Your task to perform on an android device: Go to wifi settings Image 0: 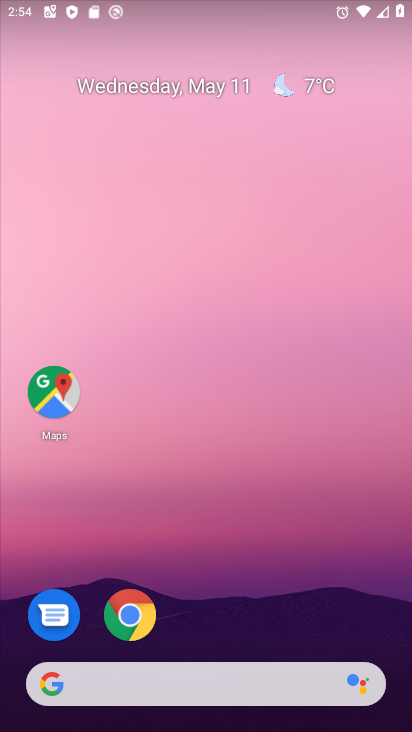
Step 0: drag from (195, 612) to (239, 120)
Your task to perform on an android device: Go to wifi settings Image 1: 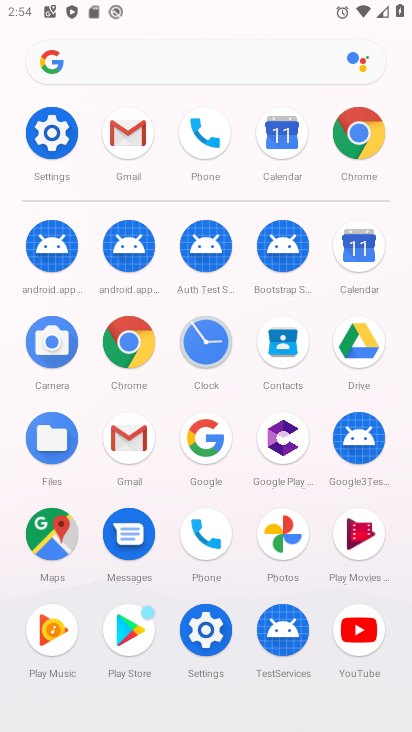
Step 1: click (58, 131)
Your task to perform on an android device: Go to wifi settings Image 2: 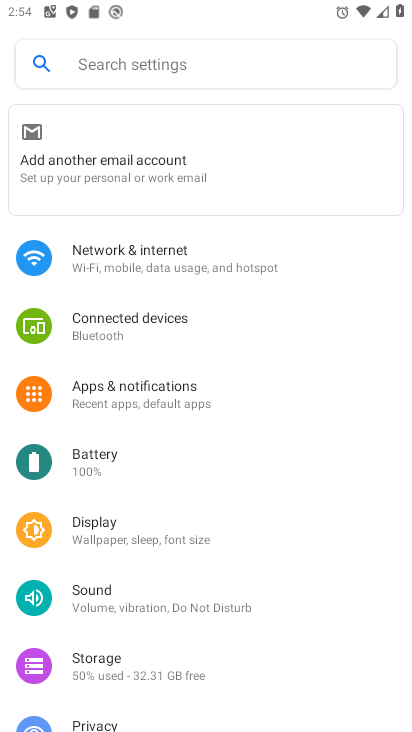
Step 2: drag from (194, 545) to (279, 38)
Your task to perform on an android device: Go to wifi settings Image 3: 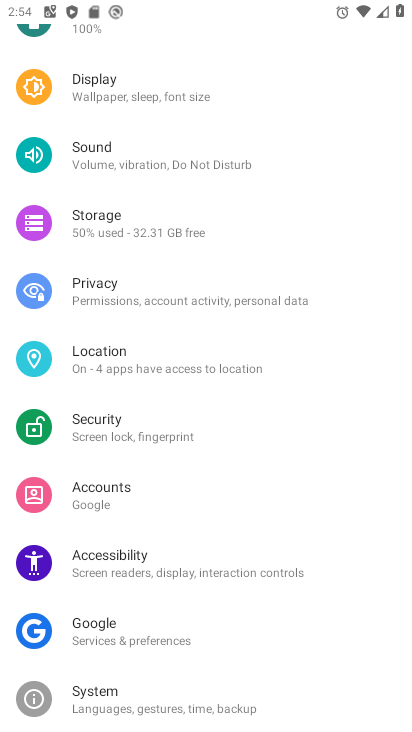
Step 3: drag from (202, 400) to (269, 104)
Your task to perform on an android device: Go to wifi settings Image 4: 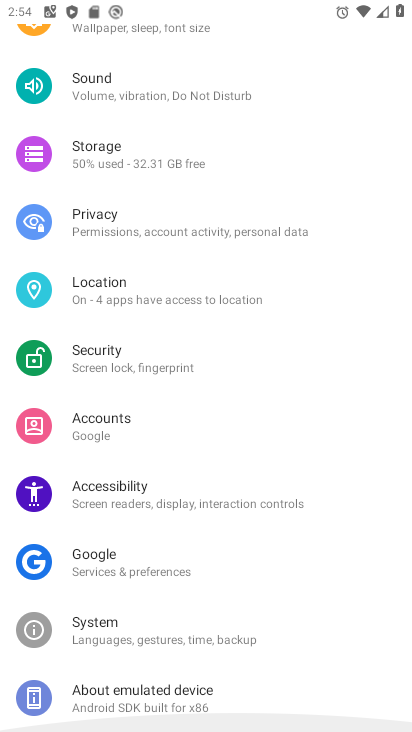
Step 4: drag from (253, 127) to (236, 698)
Your task to perform on an android device: Go to wifi settings Image 5: 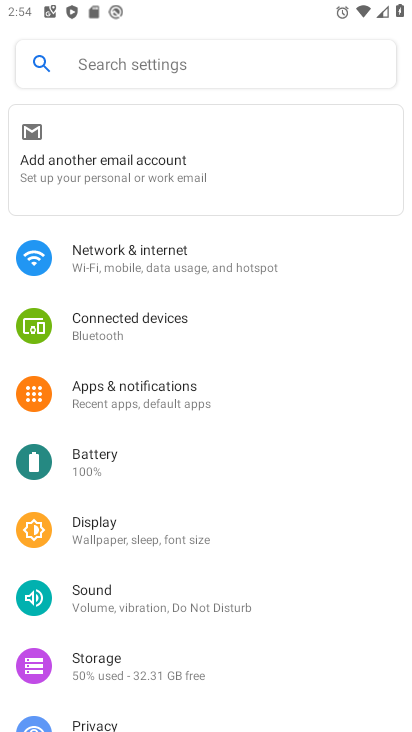
Step 5: click (133, 241)
Your task to perform on an android device: Go to wifi settings Image 6: 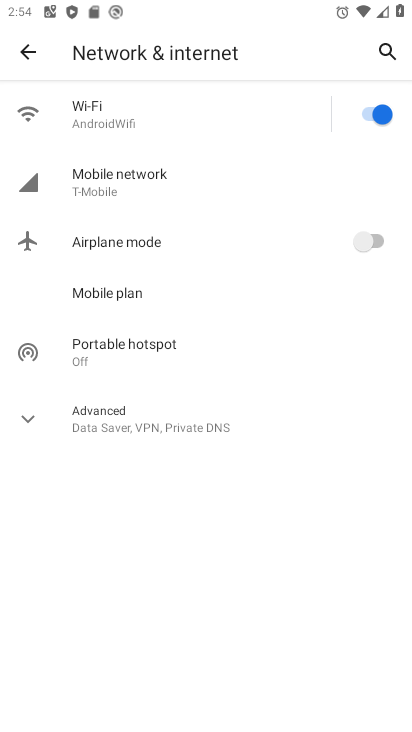
Step 6: click (233, 118)
Your task to perform on an android device: Go to wifi settings Image 7: 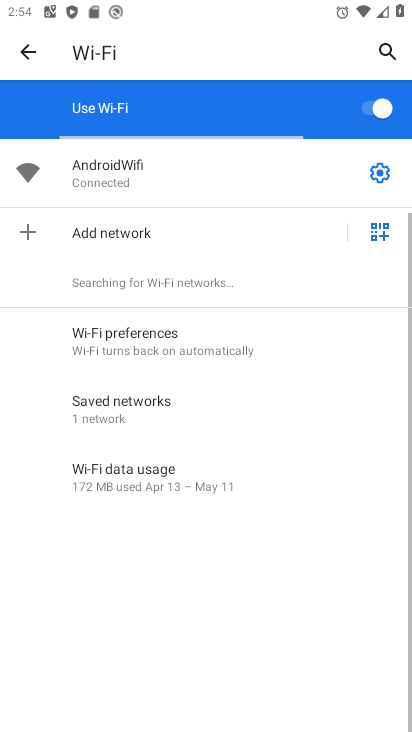
Step 7: click (382, 168)
Your task to perform on an android device: Go to wifi settings Image 8: 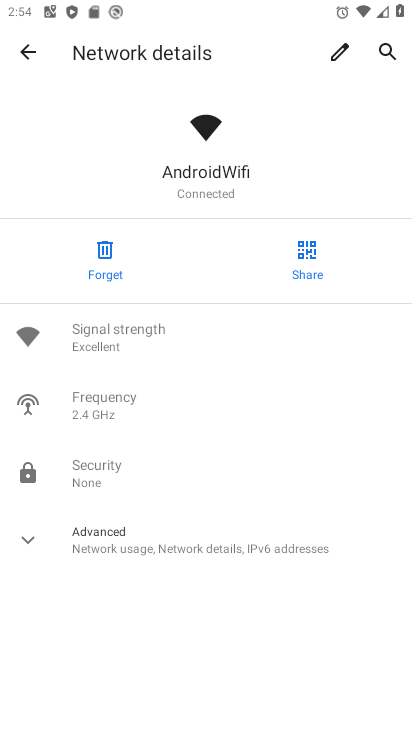
Step 8: task complete